Your task to perform on an android device: open chrome and create a bookmark for the current page Image 0: 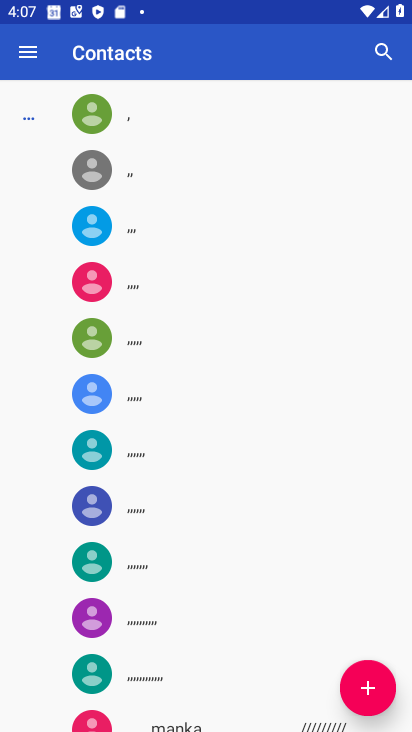
Step 0: press home button
Your task to perform on an android device: open chrome and create a bookmark for the current page Image 1: 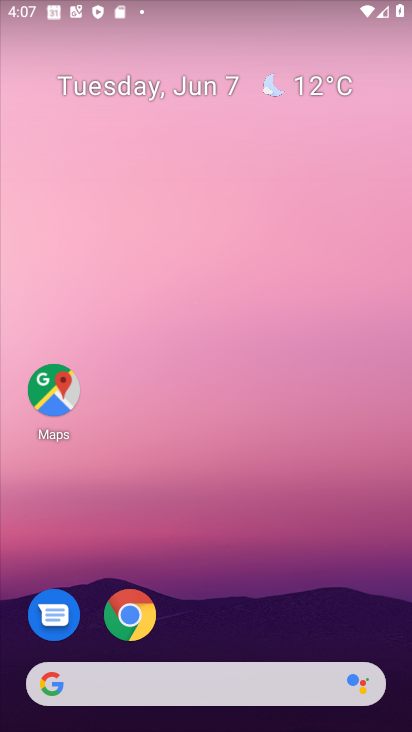
Step 1: click (119, 604)
Your task to perform on an android device: open chrome and create a bookmark for the current page Image 2: 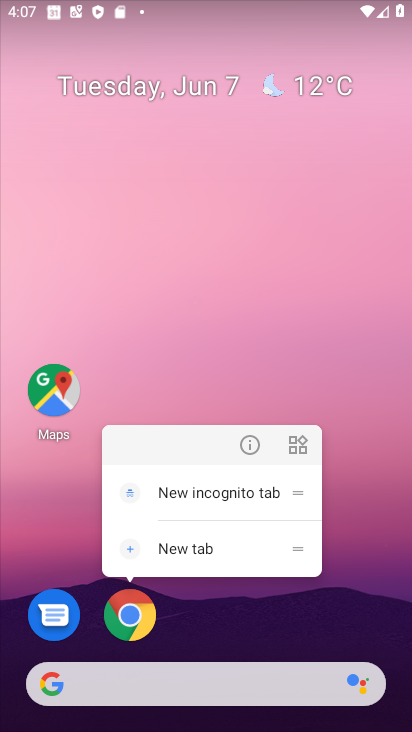
Step 2: click (119, 626)
Your task to perform on an android device: open chrome and create a bookmark for the current page Image 3: 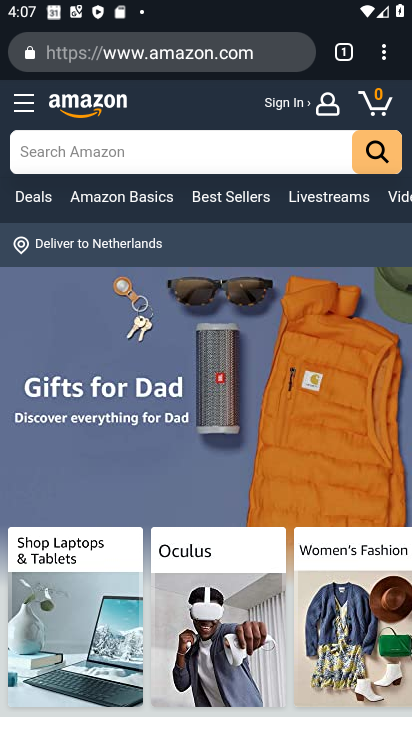
Step 3: click (375, 52)
Your task to perform on an android device: open chrome and create a bookmark for the current page Image 4: 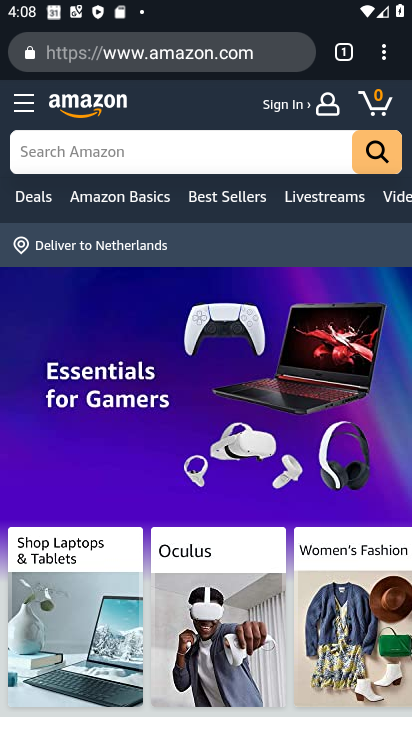
Step 4: click (392, 49)
Your task to perform on an android device: open chrome and create a bookmark for the current page Image 5: 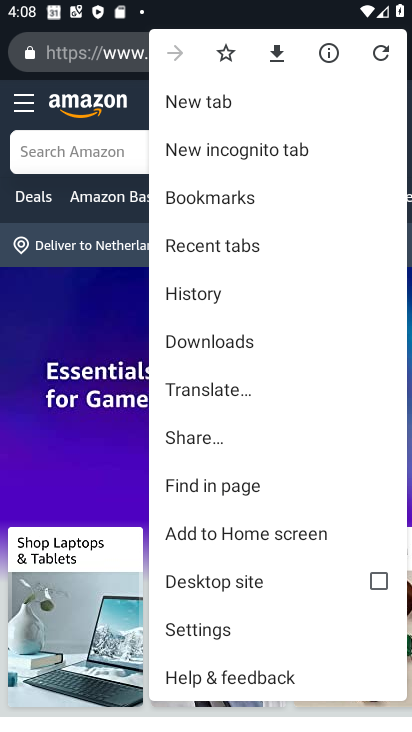
Step 5: click (220, 54)
Your task to perform on an android device: open chrome and create a bookmark for the current page Image 6: 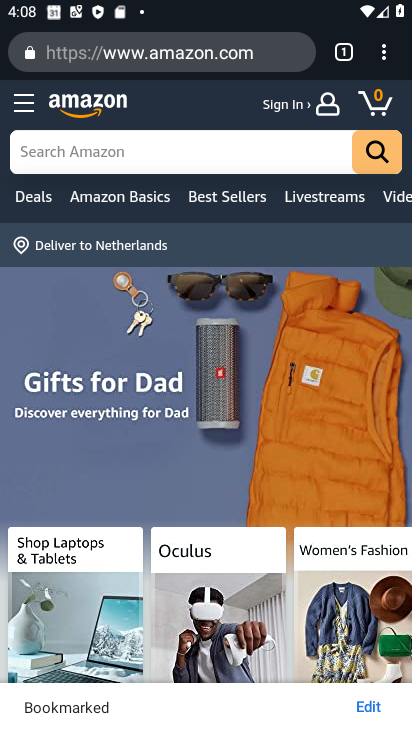
Step 6: task complete